Your task to perform on an android device: turn on the 12-hour format for clock Image 0: 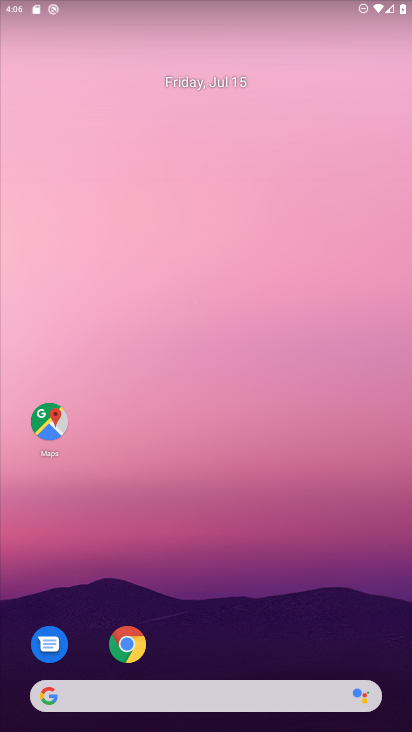
Step 0: drag from (54, 471) to (227, 85)
Your task to perform on an android device: turn on the 12-hour format for clock Image 1: 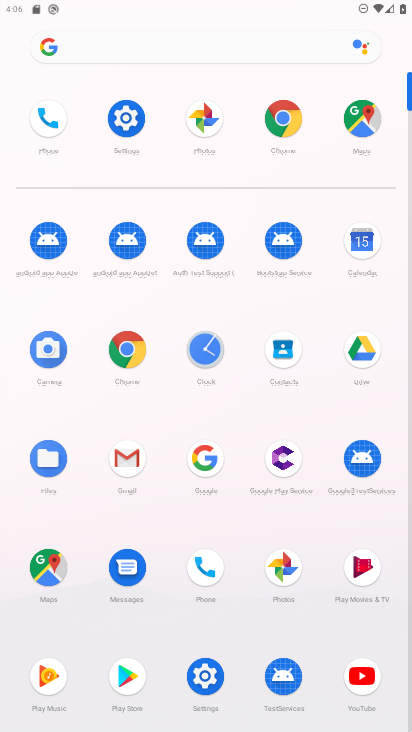
Step 1: click (216, 356)
Your task to perform on an android device: turn on the 12-hour format for clock Image 2: 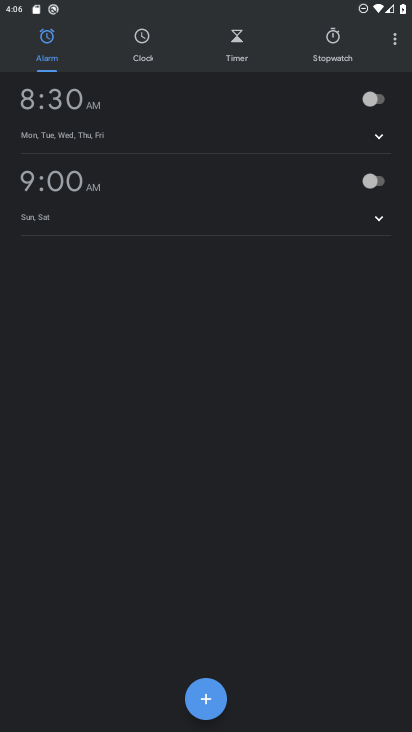
Step 2: click (393, 49)
Your task to perform on an android device: turn on the 12-hour format for clock Image 3: 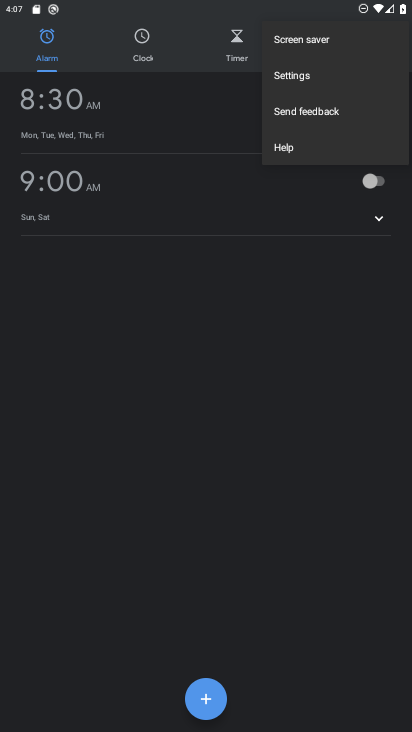
Step 3: click (333, 76)
Your task to perform on an android device: turn on the 12-hour format for clock Image 4: 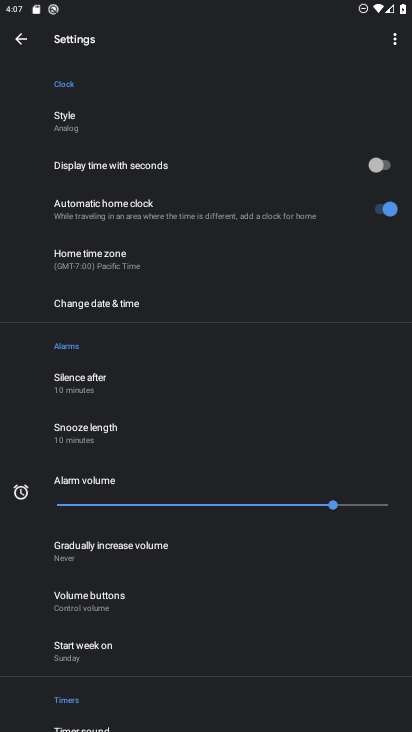
Step 4: click (142, 304)
Your task to perform on an android device: turn on the 12-hour format for clock Image 5: 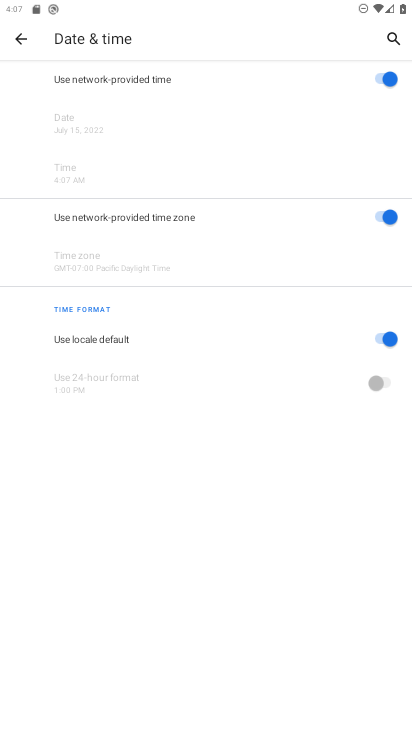
Step 5: task complete